Your task to perform on an android device: Open the map Image 0: 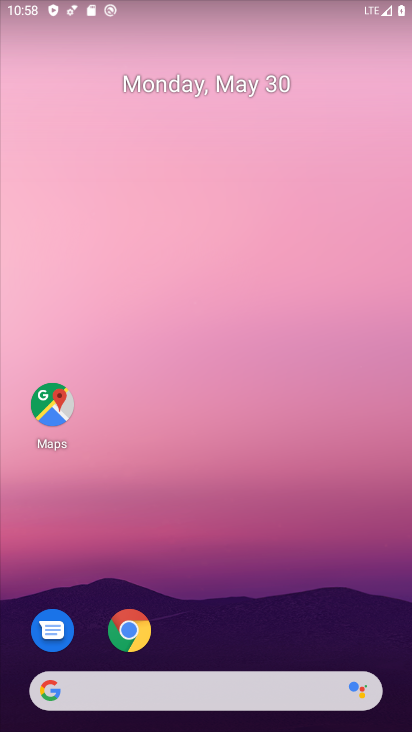
Step 0: click (59, 394)
Your task to perform on an android device: Open the map Image 1: 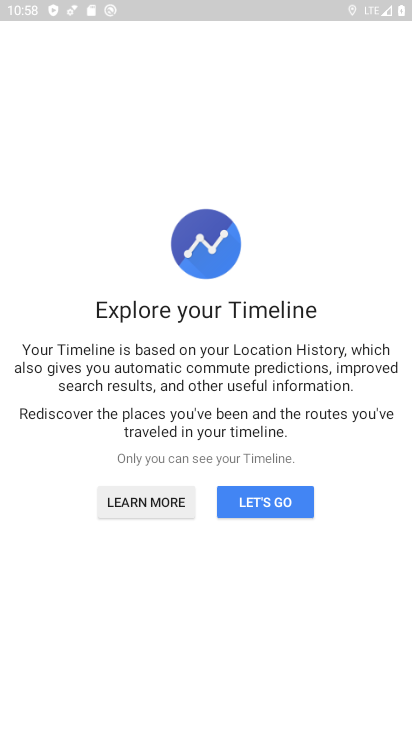
Step 1: task complete